Your task to perform on an android device: What's the weather? Image 0: 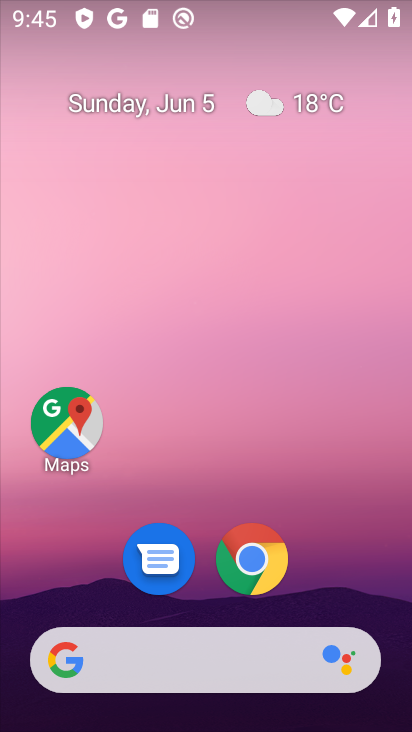
Step 0: click (288, 104)
Your task to perform on an android device: What's the weather? Image 1: 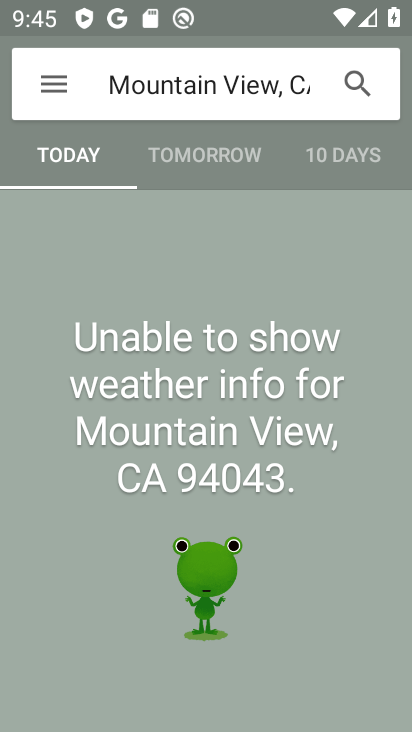
Step 1: task complete